Your task to perform on an android device: turn on improve location accuracy Image 0: 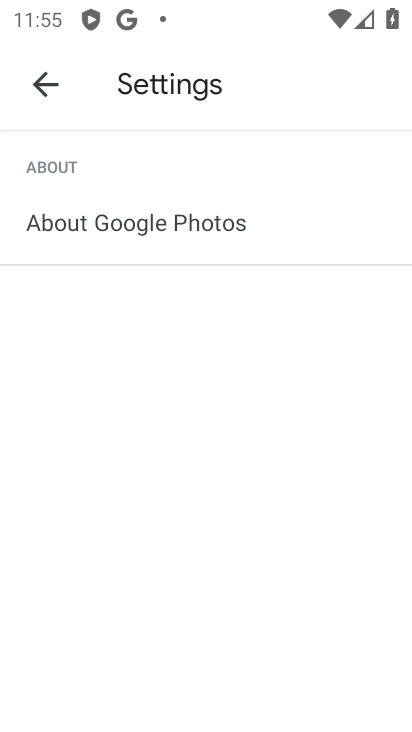
Step 0: press home button
Your task to perform on an android device: turn on improve location accuracy Image 1: 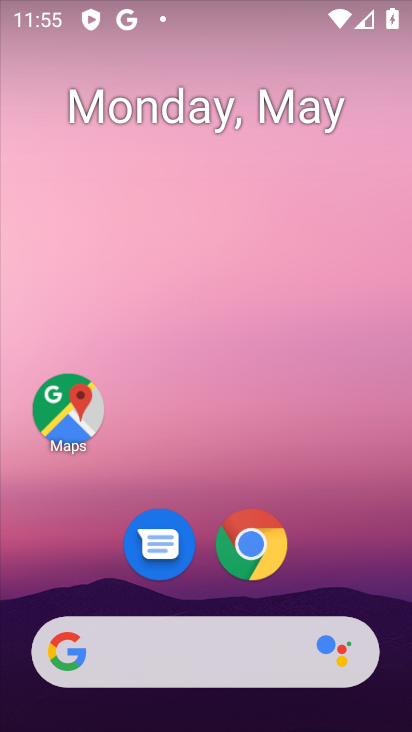
Step 1: drag from (179, 601) to (172, 156)
Your task to perform on an android device: turn on improve location accuracy Image 2: 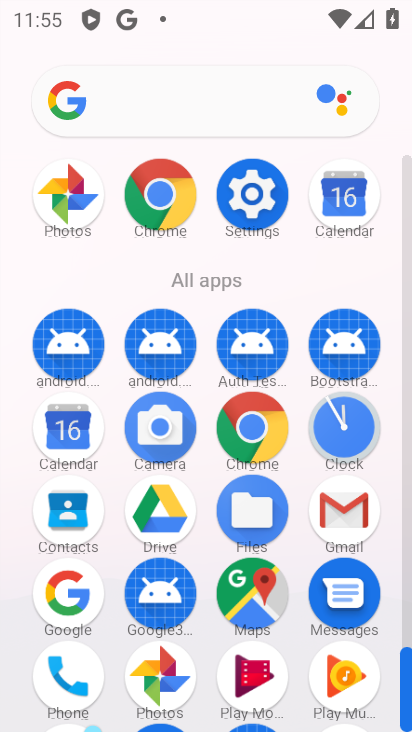
Step 2: click (239, 197)
Your task to perform on an android device: turn on improve location accuracy Image 3: 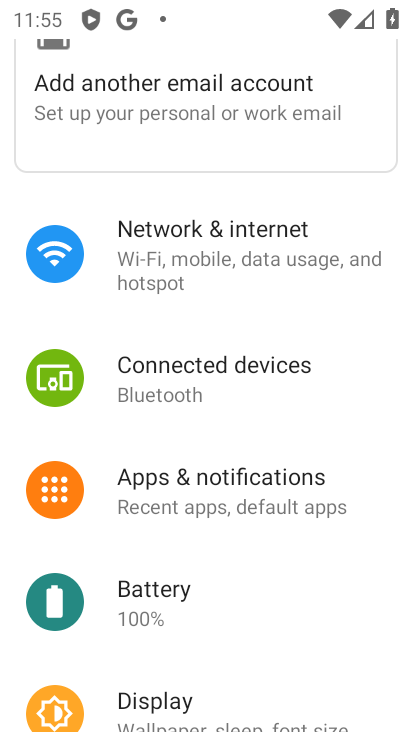
Step 3: drag from (259, 551) to (276, 310)
Your task to perform on an android device: turn on improve location accuracy Image 4: 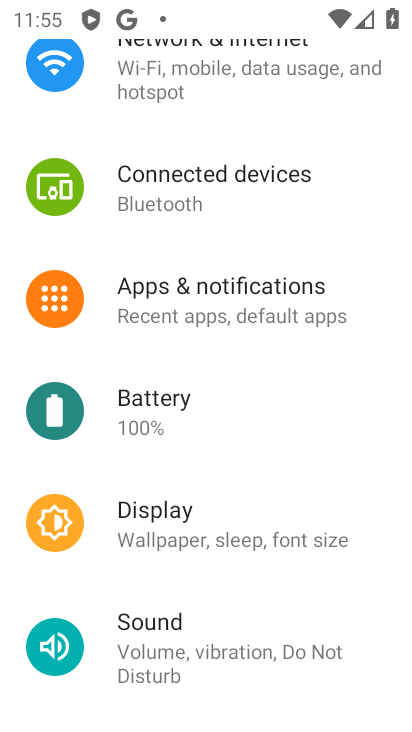
Step 4: drag from (233, 634) to (265, 355)
Your task to perform on an android device: turn on improve location accuracy Image 5: 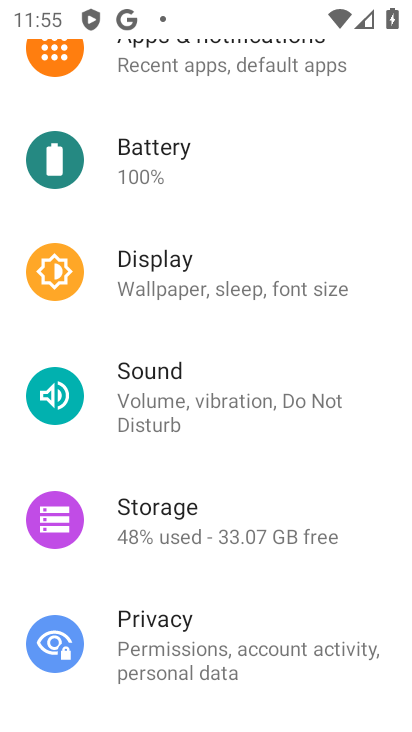
Step 5: drag from (228, 590) to (287, 330)
Your task to perform on an android device: turn on improve location accuracy Image 6: 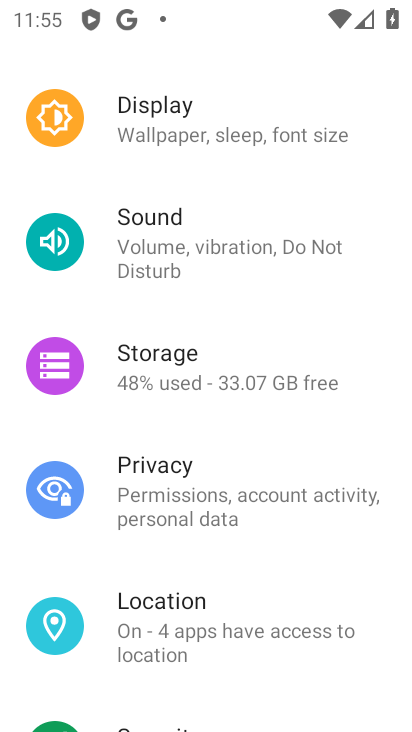
Step 6: click (219, 612)
Your task to perform on an android device: turn on improve location accuracy Image 7: 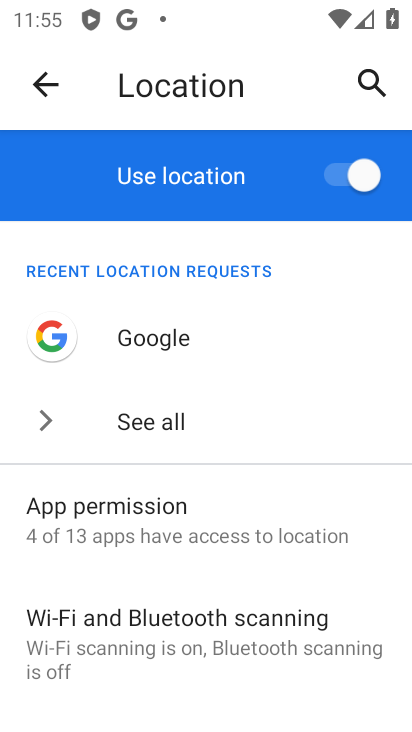
Step 7: drag from (218, 613) to (230, 325)
Your task to perform on an android device: turn on improve location accuracy Image 8: 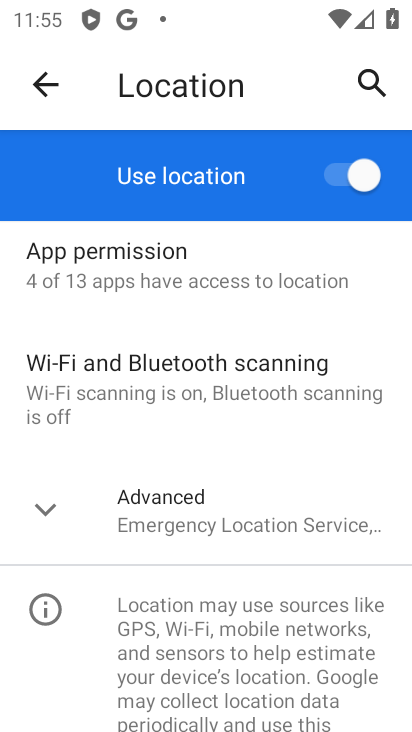
Step 8: click (219, 502)
Your task to perform on an android device: turn on improve location accuracy Image 9: 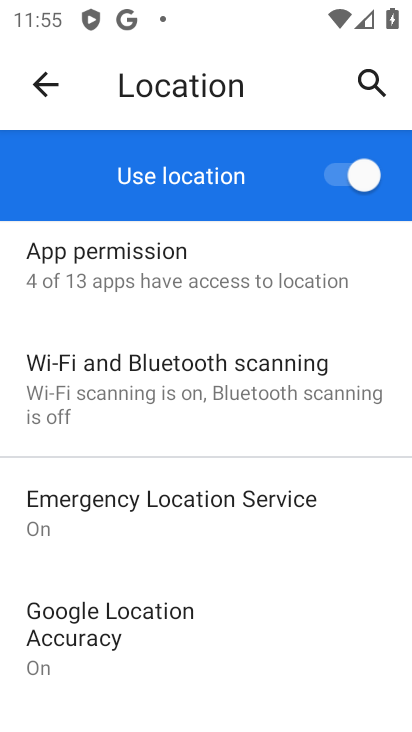
Step 9: drag from (204, 643) to (226, 401)
Your task to perform on an android device: turn on improve location accuracy Image 10: 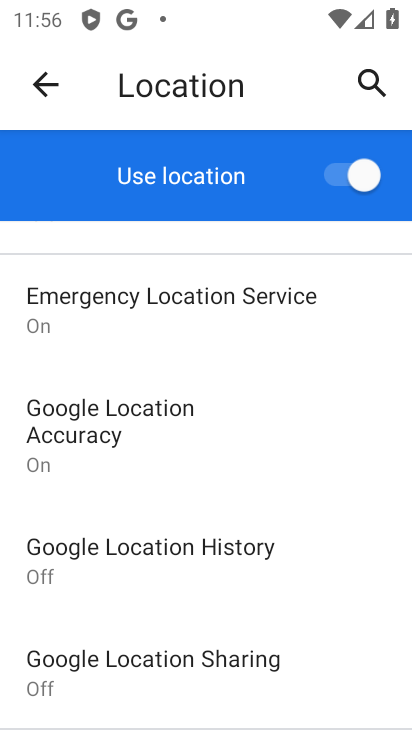
Step 10: drag from (258, 618) to (252, 420)
Your task to perform on an android device: turn on improve location accuracy Image 11: 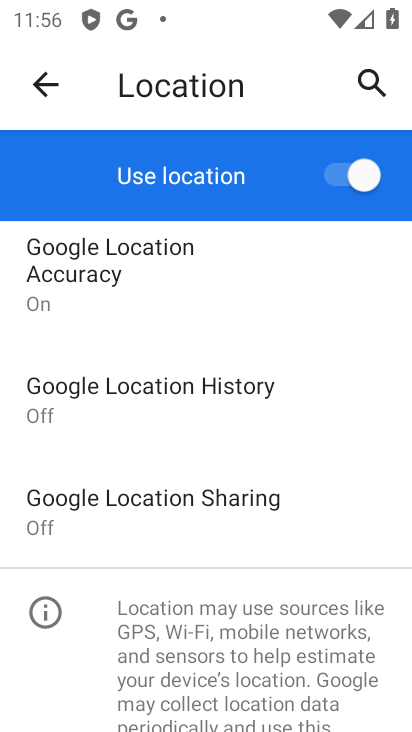
Step 11: click (171, 286)
Your task to perform on an android device: turn on improve location accuracy Image 12: 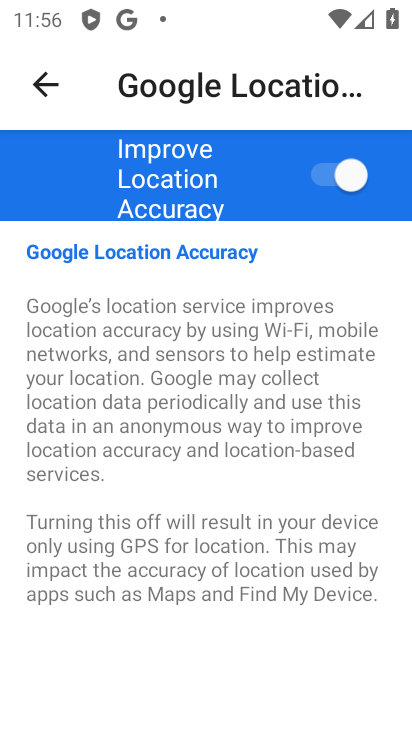
Step 12: task complete